Your task to perform on an android device: Play the last video I watched on Youtube Image 0: 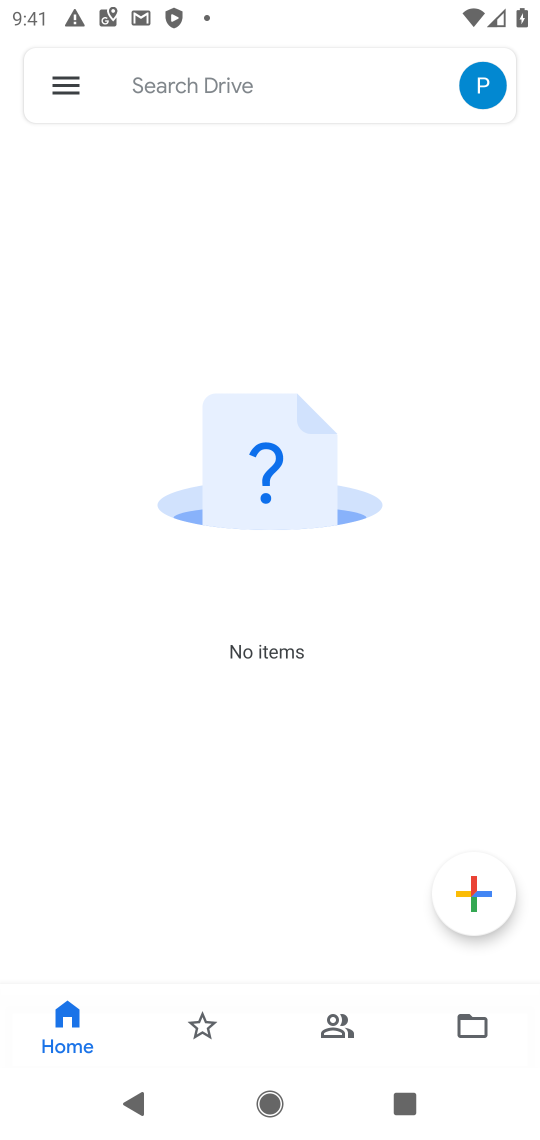
Step 0: press home button
Your task to perform on an android device: Play the last video I watched on Youtube Image 1: 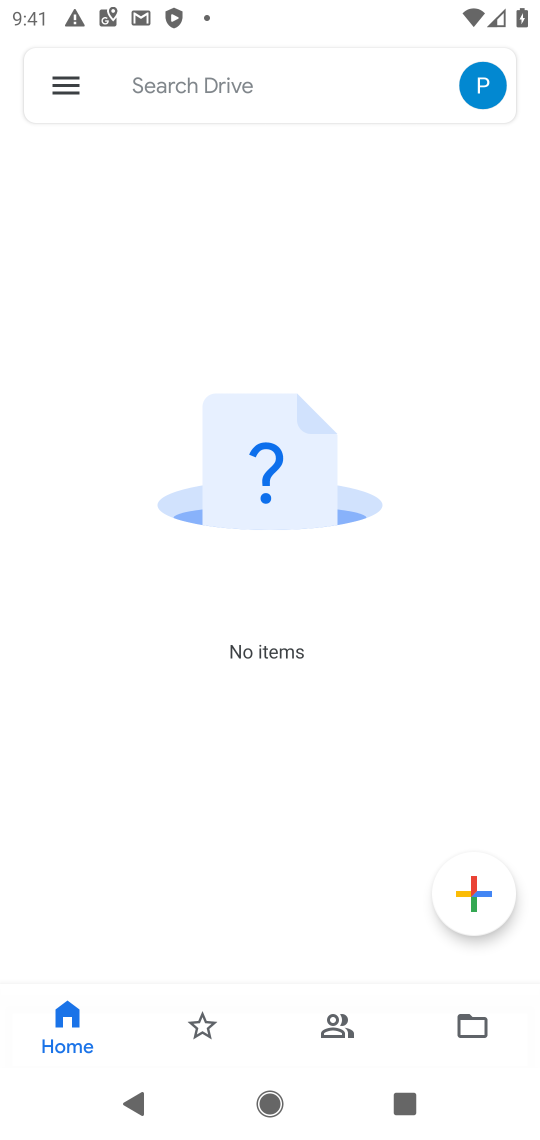
Step 1: press home button
Your task to perform on an android device: Play the last video I watched on Youtube Image 2: 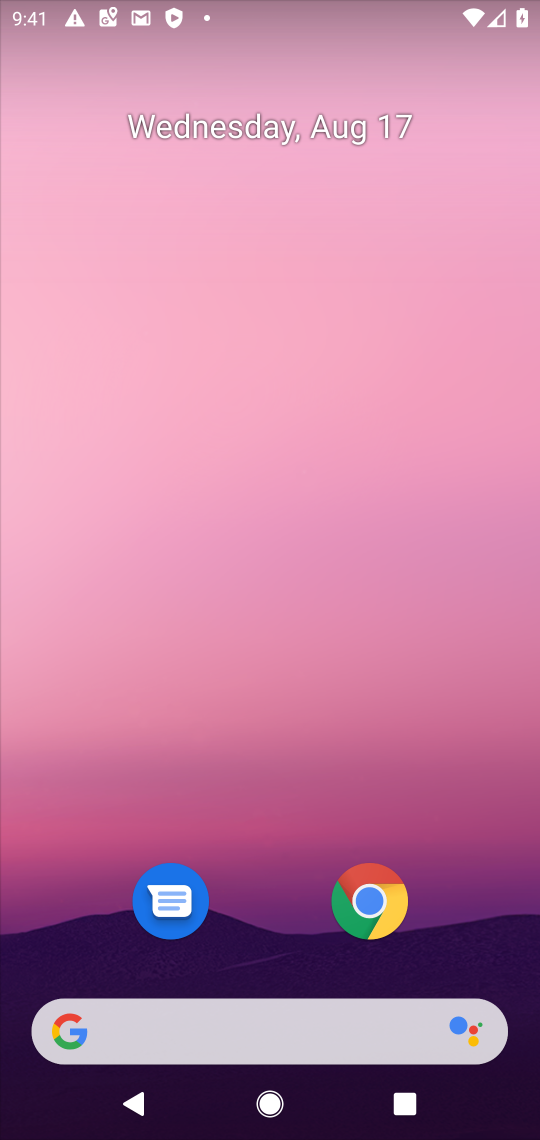
Step 2: drag from (274, 943) to (303, 210)
Your task to perform on an android device: Play the last video I watched on Youtube Image 3: 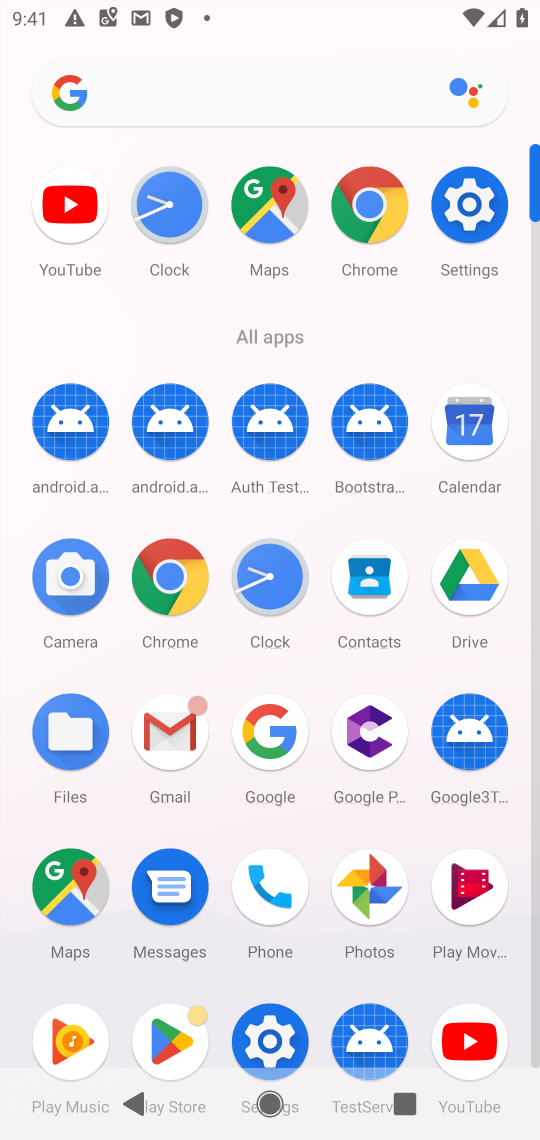
Step 3: click (447, 1044)
Your task to perform on an android device: Play the last video I watched on Youtube Image 4: 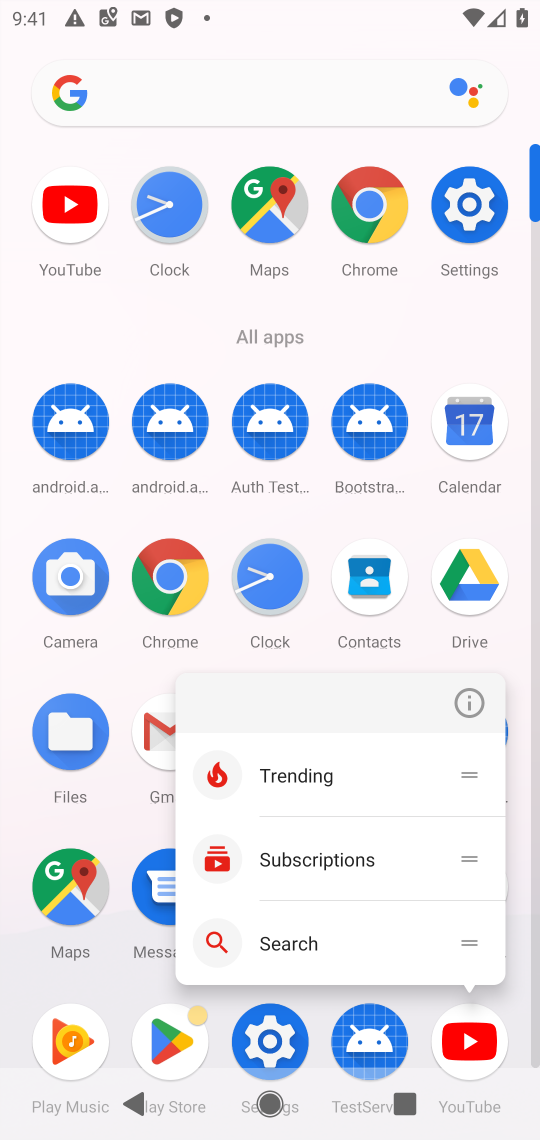
Step 4: click (460, 1043)
Your task to perform on an android device: Play the last video I watched on Youtube Image 5: 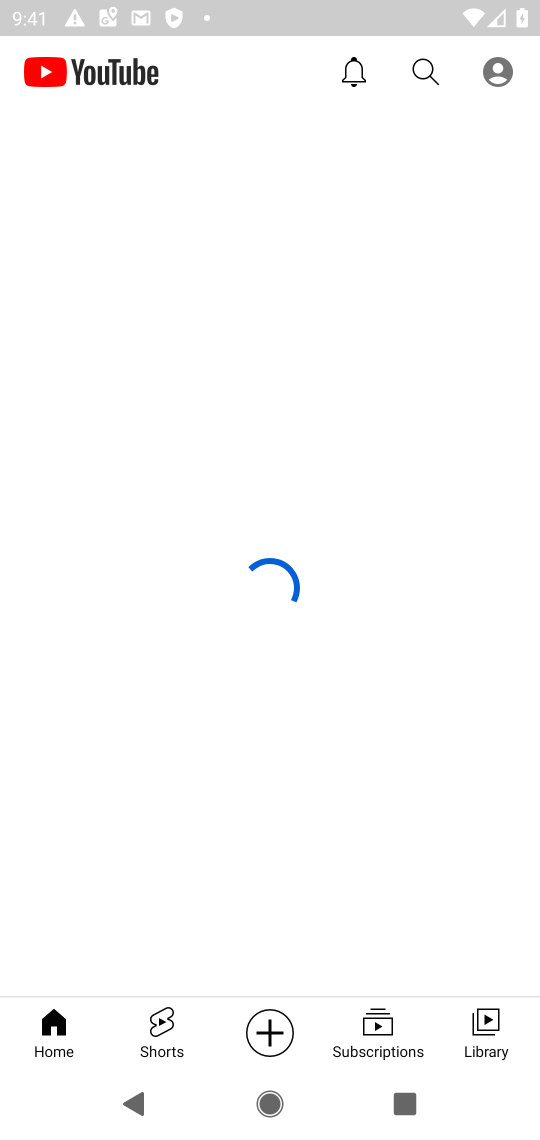
Step 5: click (457, 1020)
Your task to perform on an android device: Play the last video I watched on Youtube Image 6: 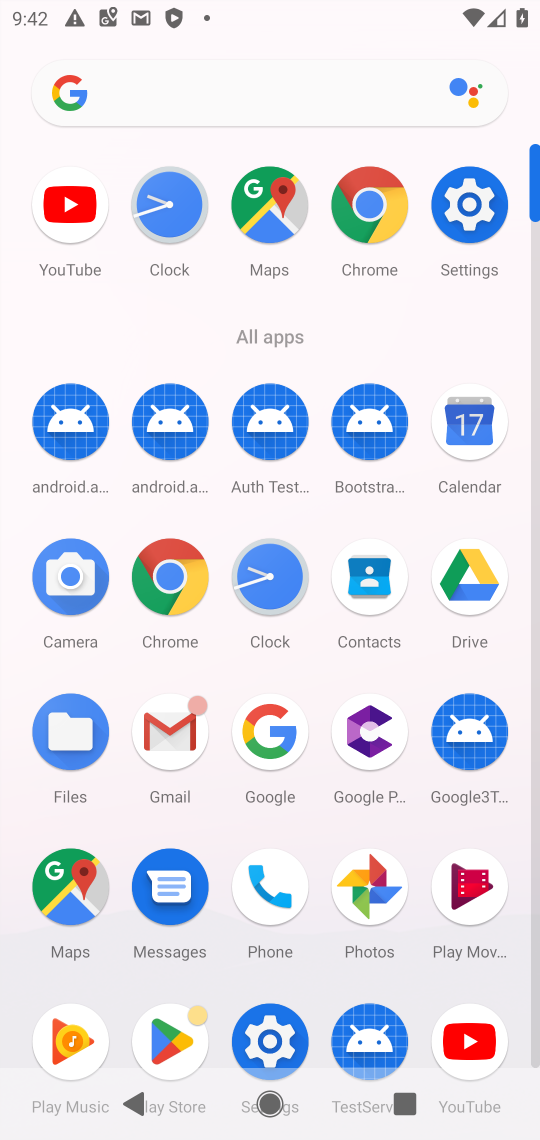
Step 6: click (50, 198)
Your task to perform on an android device: Play the last video I watched on Youtube Image 7: 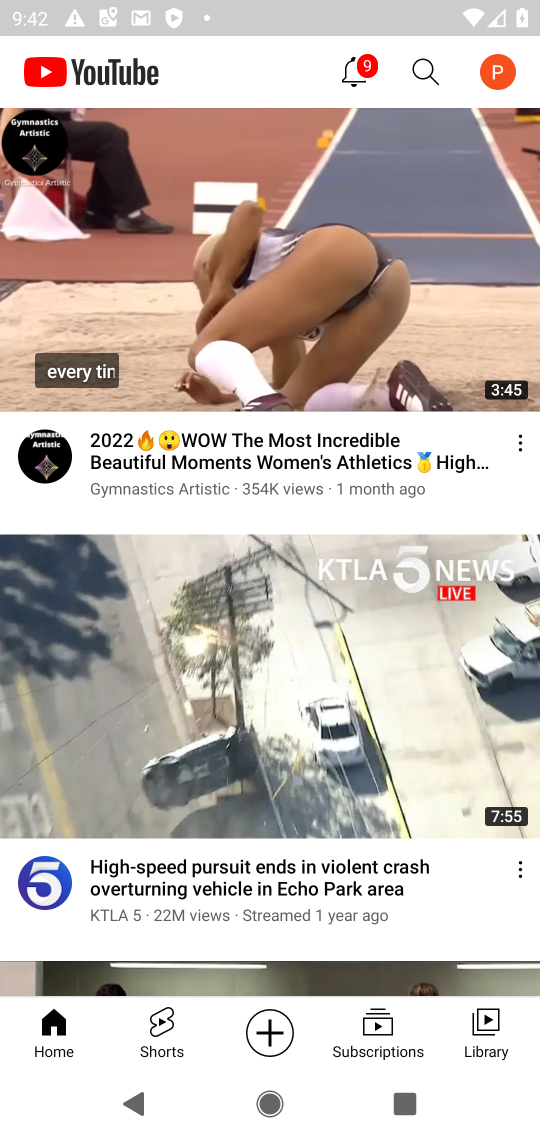
Step 7: click (501, 1034)
Your task to perform on an android device: Play the last video I watched on Youtube Image 8: 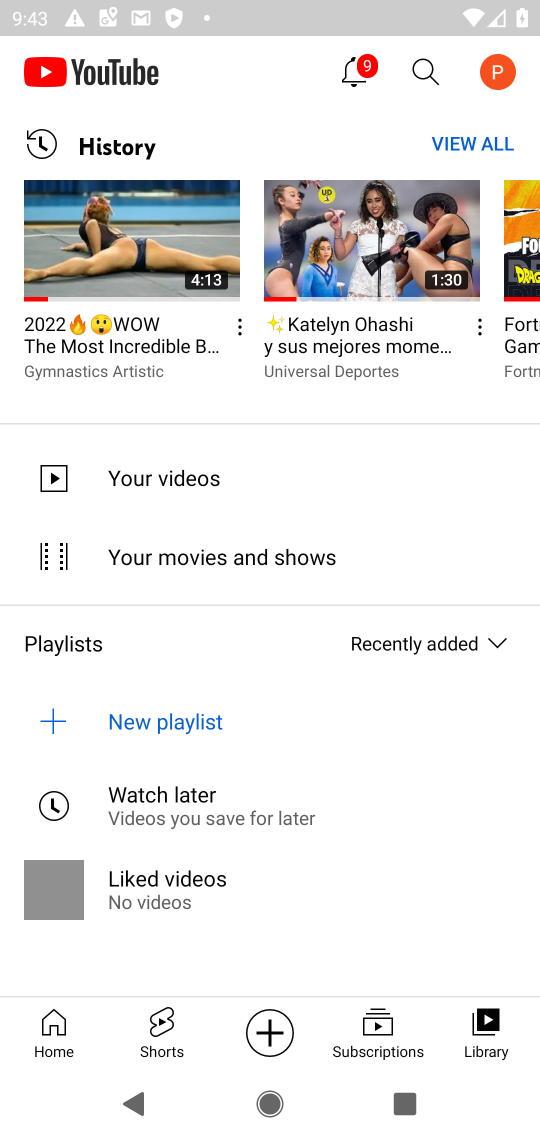
Step 8: click (116, 256)
Your task to perform on an android device: Play the last video I watched on Youtube Image 9: 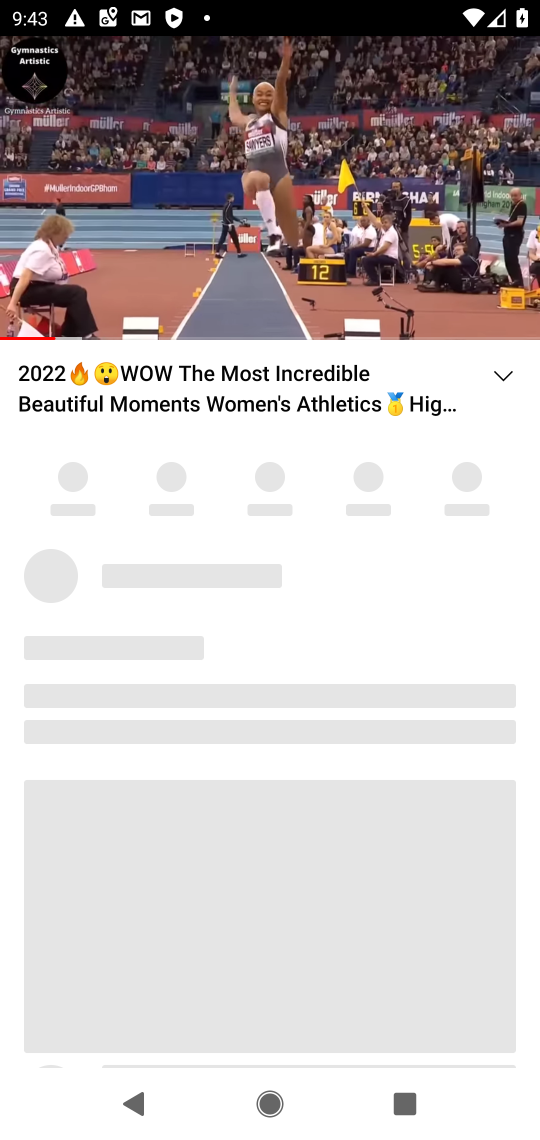
Step 9: task complete